Your task to perform on an android device: turn on the 24-hour format for clock Image 0: 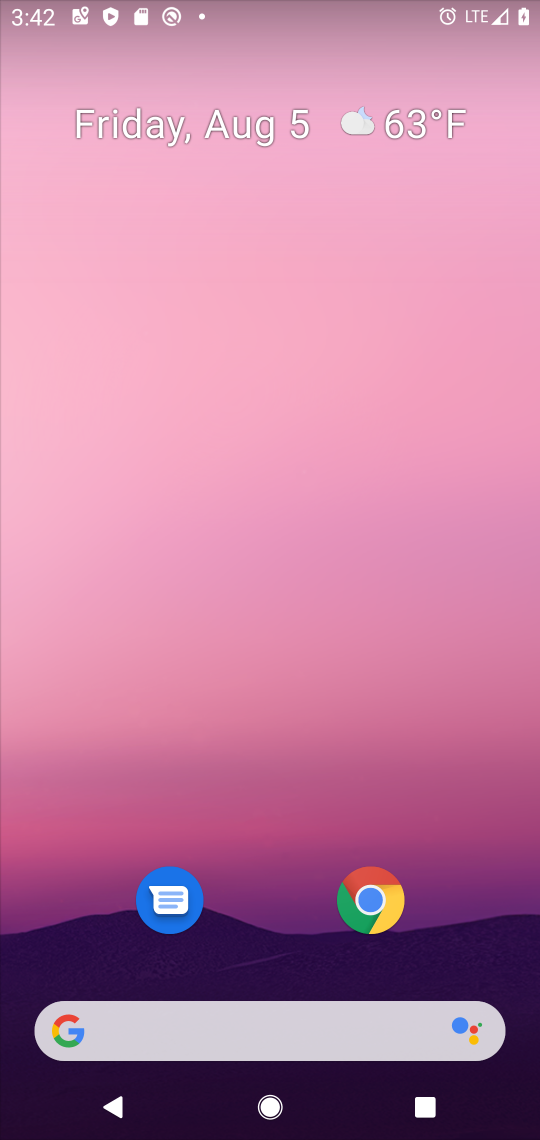
Step 0: drag from (183, 956) to (262, 113)
Your task to perform on an android device: turn on the 24-hour format for clock Image 1: 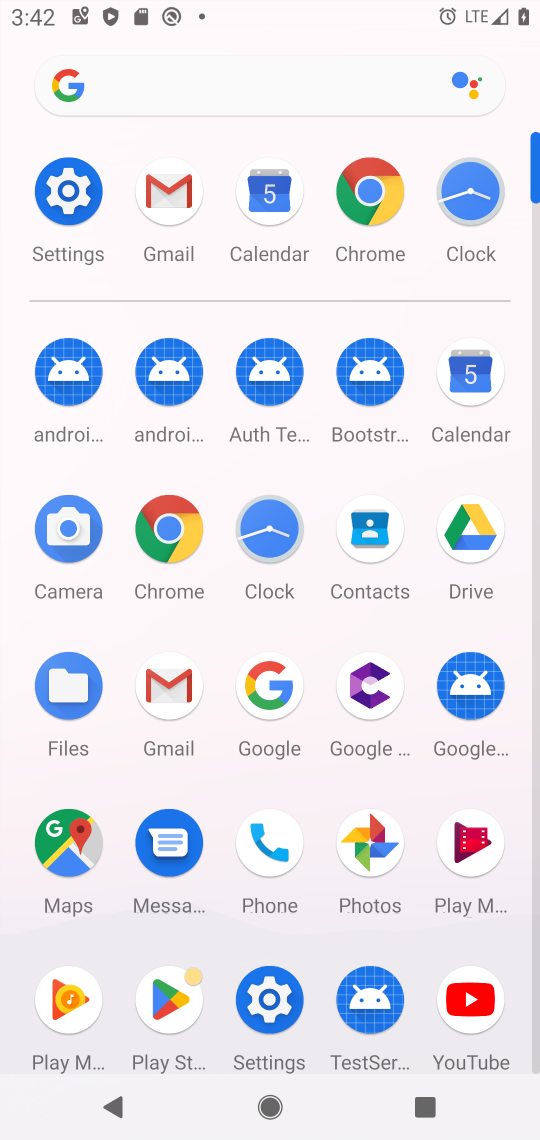
Step 1: click (279, 522)
Your task to perform on an android device: turn on the 24-hour format for clock Image 2: 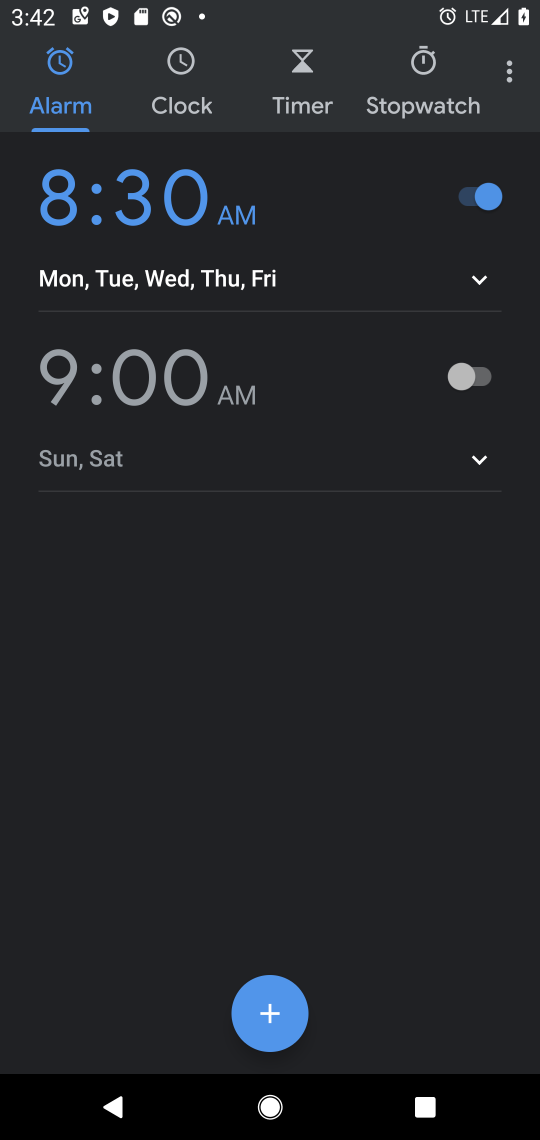
Step 2: click (505, 76)
Your task to perform on an android device: turn on the 24-hour format for clock Image 3: 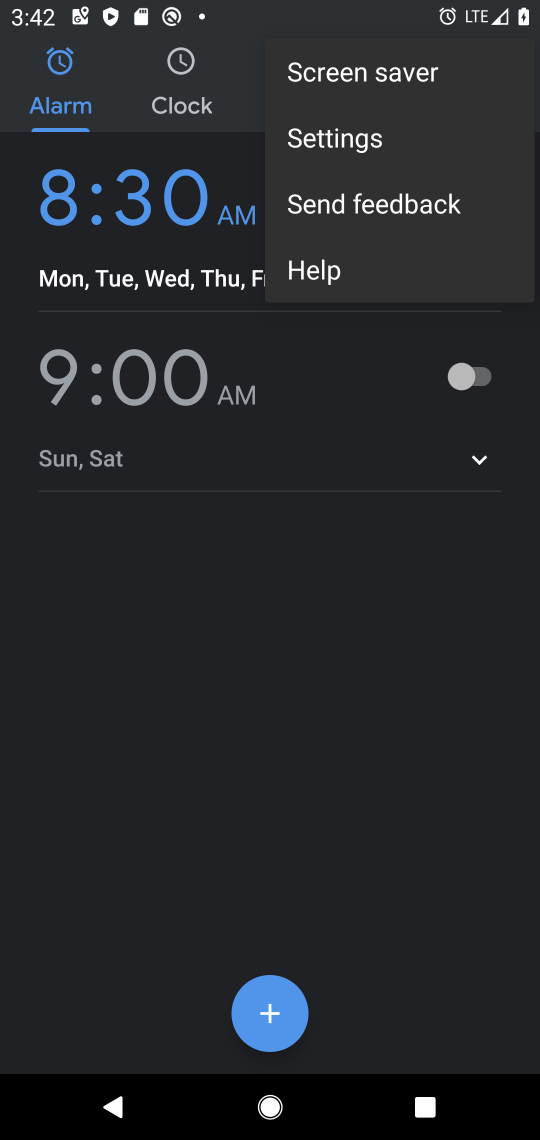
Step 3: click (401, 135)
Your task to perform on an android device: turn on the 24-hour format for clock Image 4: 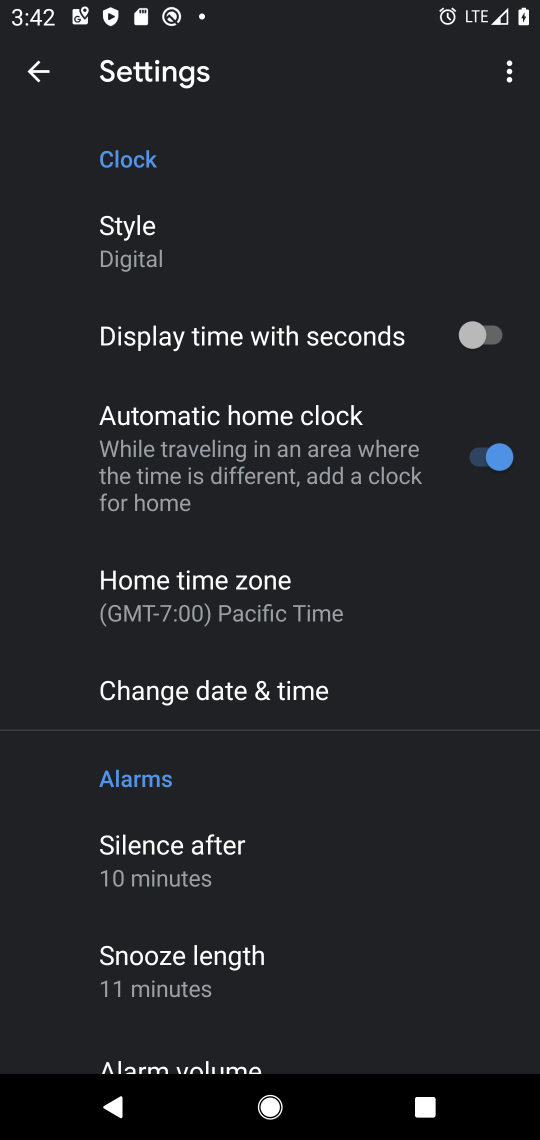
Step 4: click (315, 694)
Your task to perform on an android device: turn on the 24-hour format for clock Image 5: 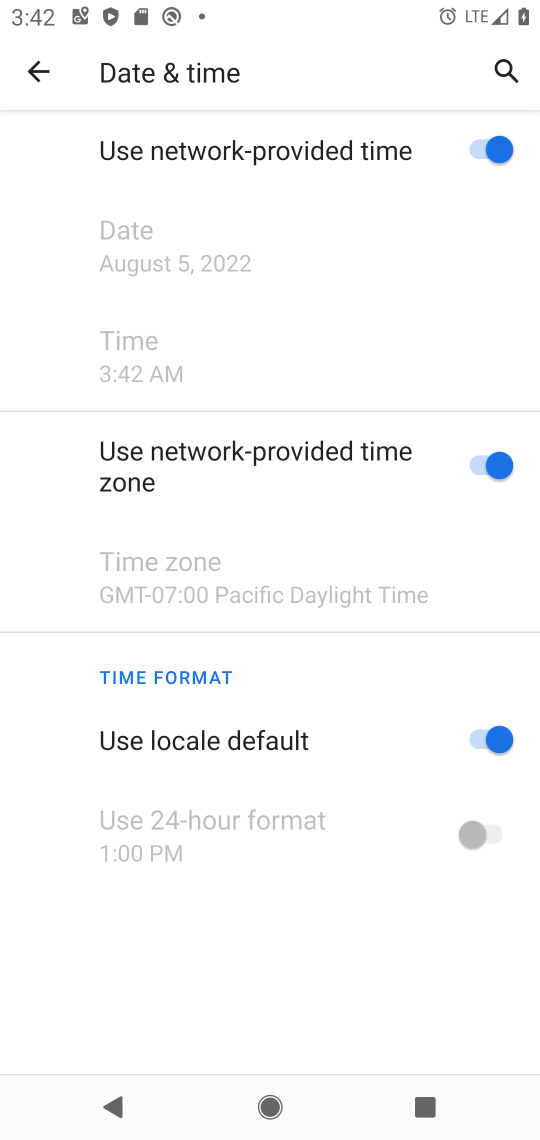
Step 5: click (490, 735)
Your task to perform on an android device: turn on the 24-hour format for clock Image 6: 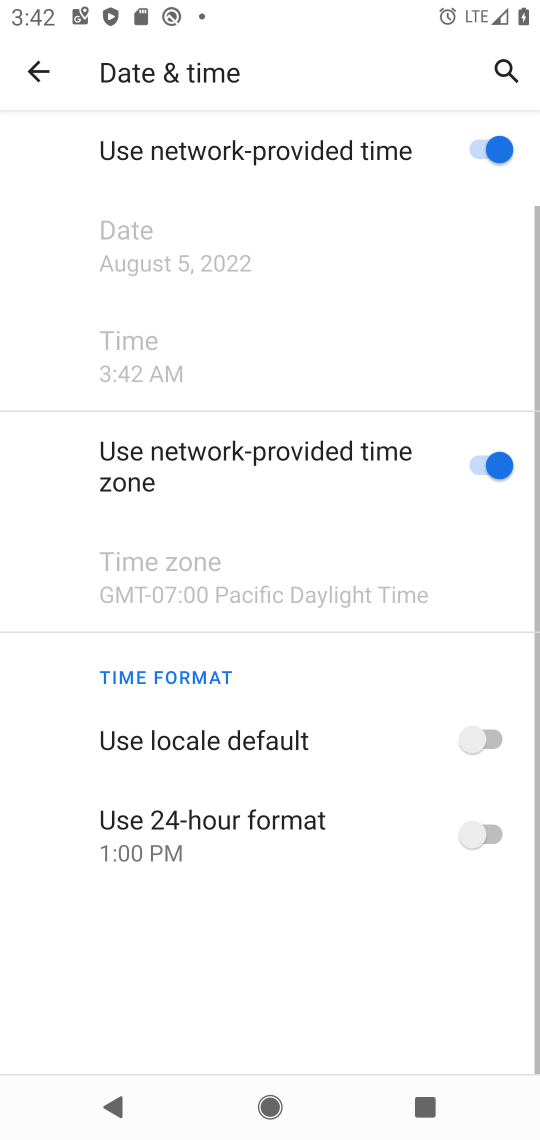
Step 6: click (485, 811)
Your task to perform on an android device: turn on the 24-hour format for clock Image 7: 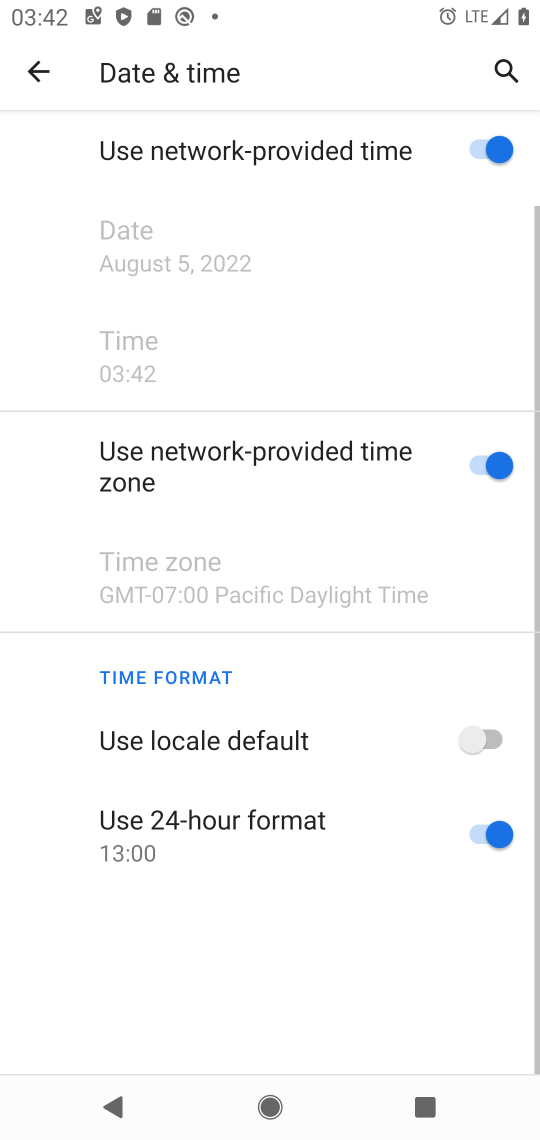
Step 7: task complete